Your task to perform on an android device: turn on sleep mode Image 0: 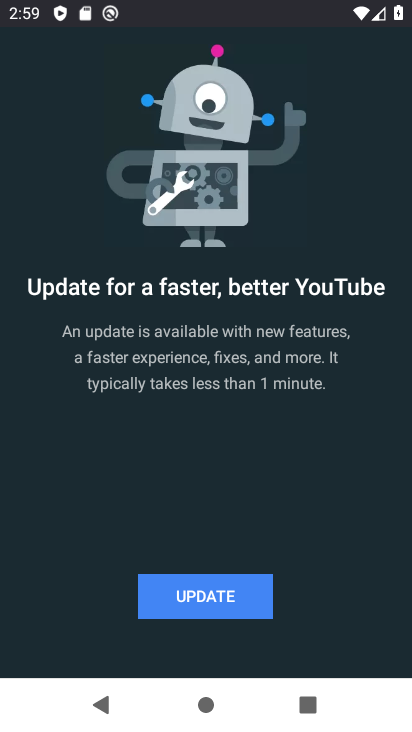
Step 0: press home button
Your task to perform on an android device: turn on sleep mode Image 1: 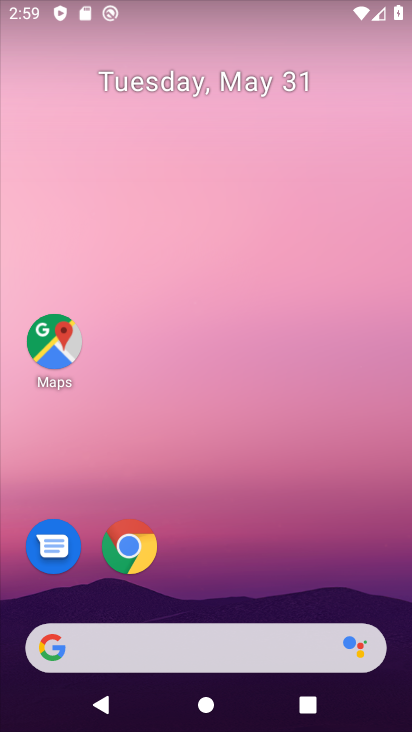
Step 1: task complete